Your task to perform on an android device: Clear the shopping cart on newegg. Image 0: 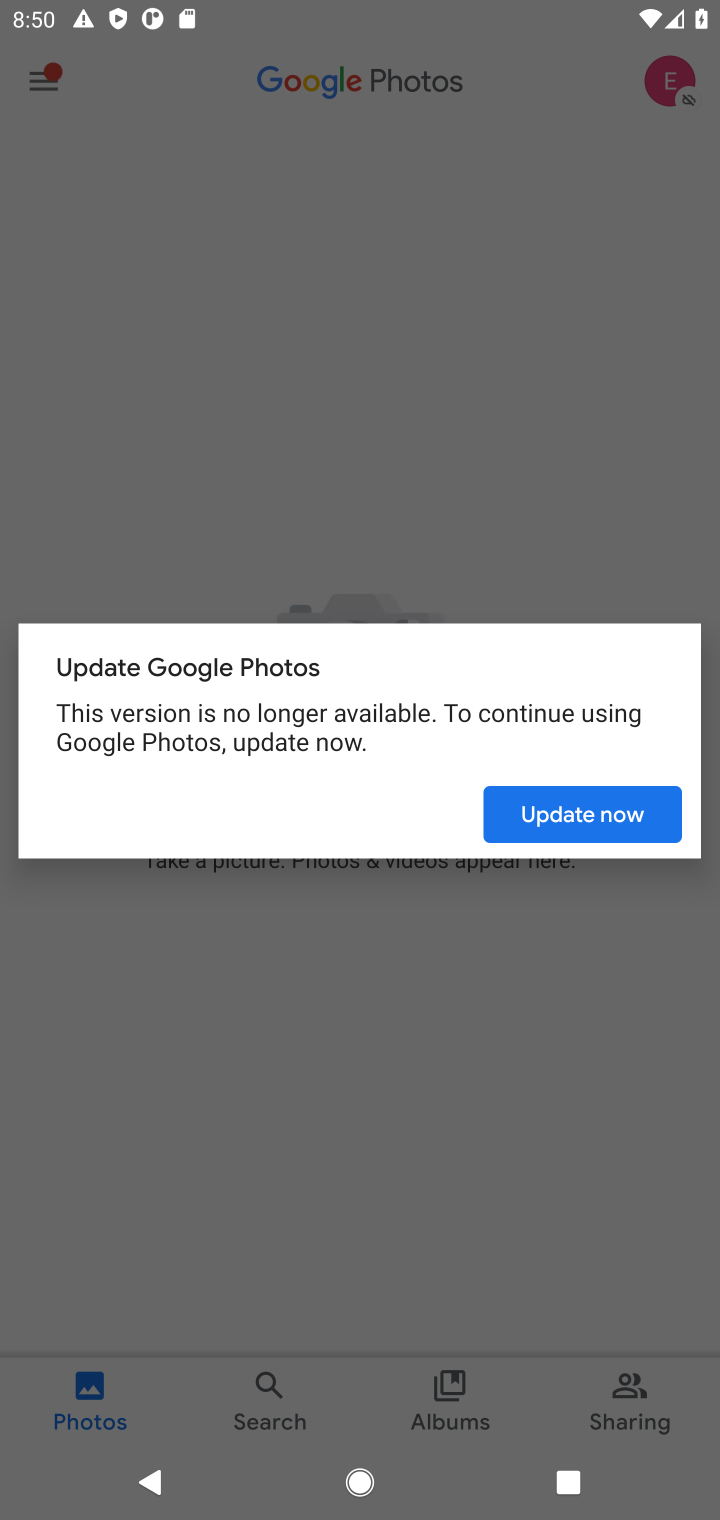
Step 0: press home button
Your task to perform on an android device: Clear the shopping cart on newegg. Image 1: 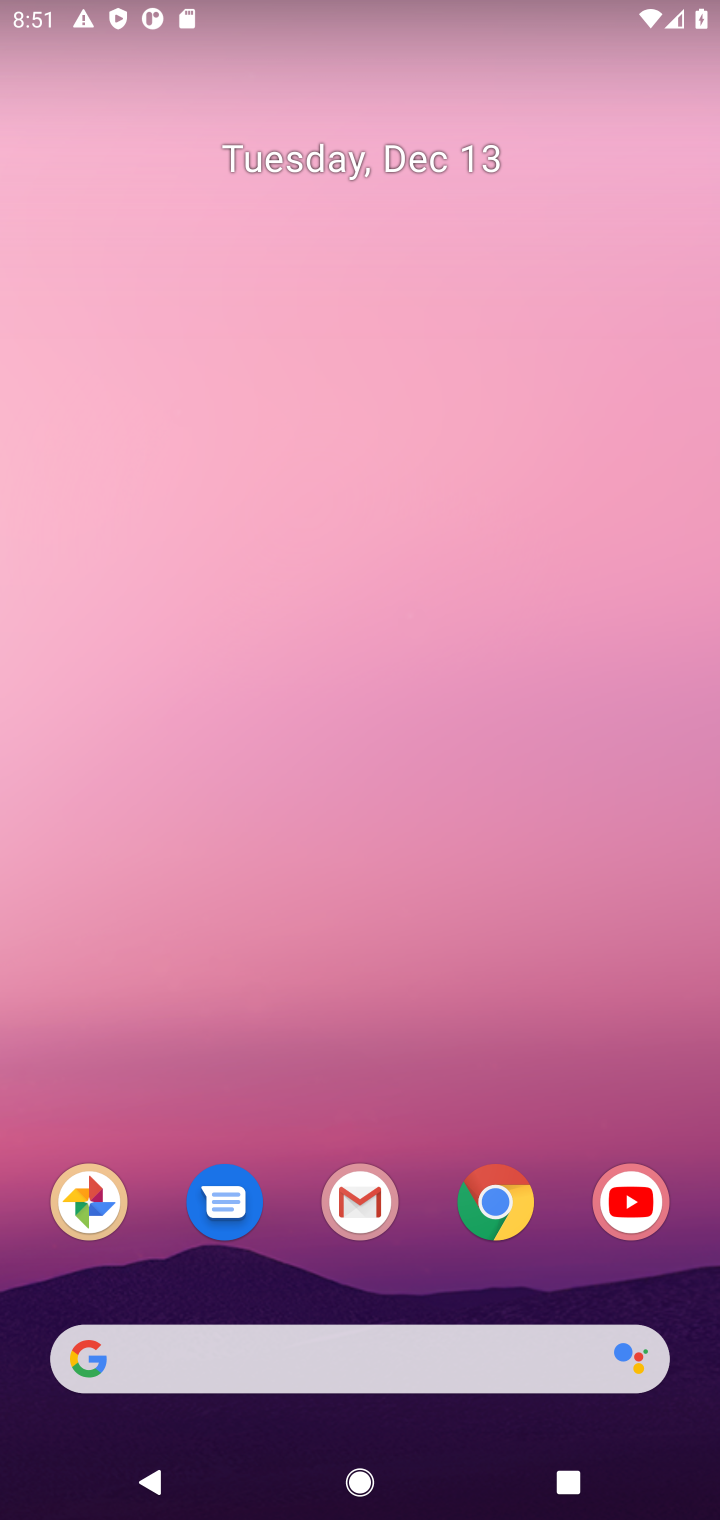
Step 1: click (501, 1221)
Your task to perform on an android device: Clear the shopping cart on newegg. Image 2: 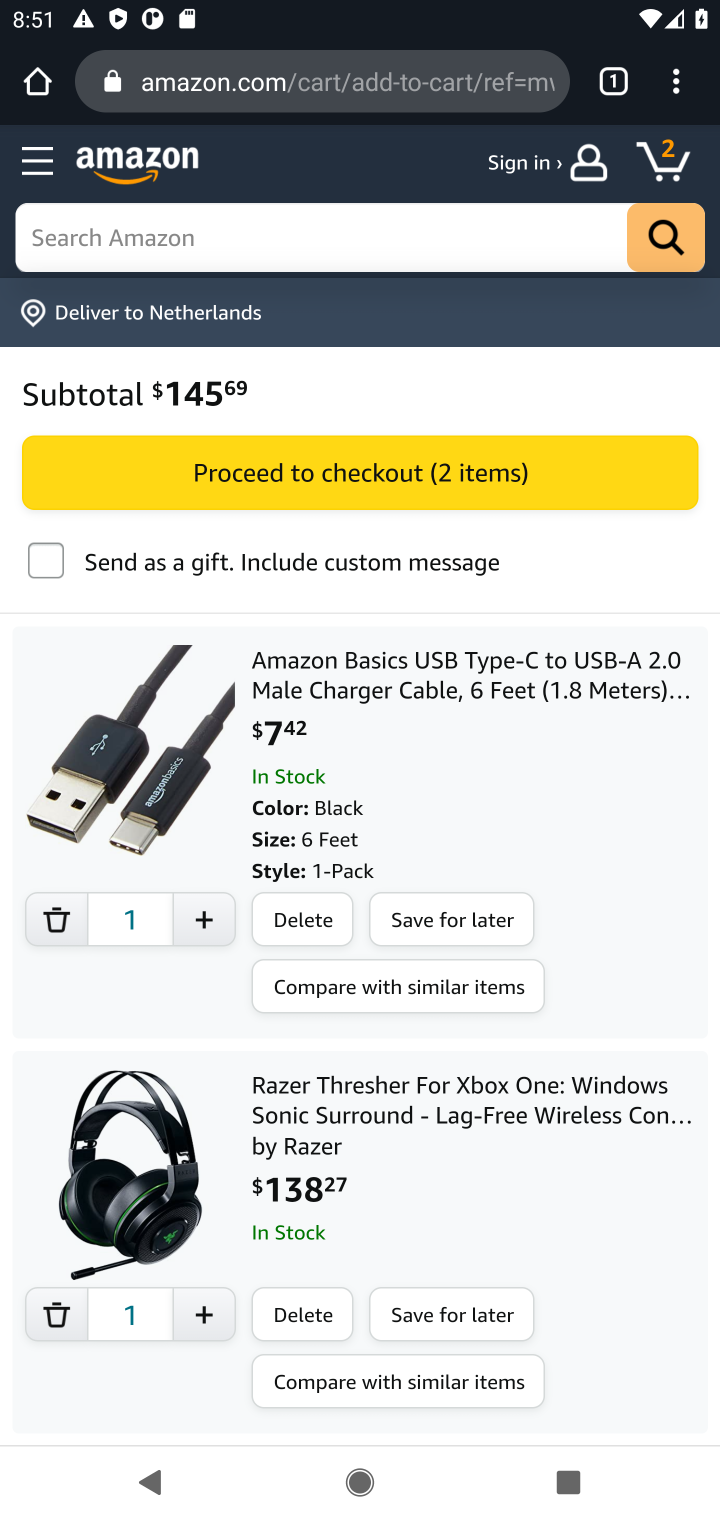
Step 2: click (252, 101)
Your task to perform on an android device: Clear the shopping cart on newegg. Image 3: 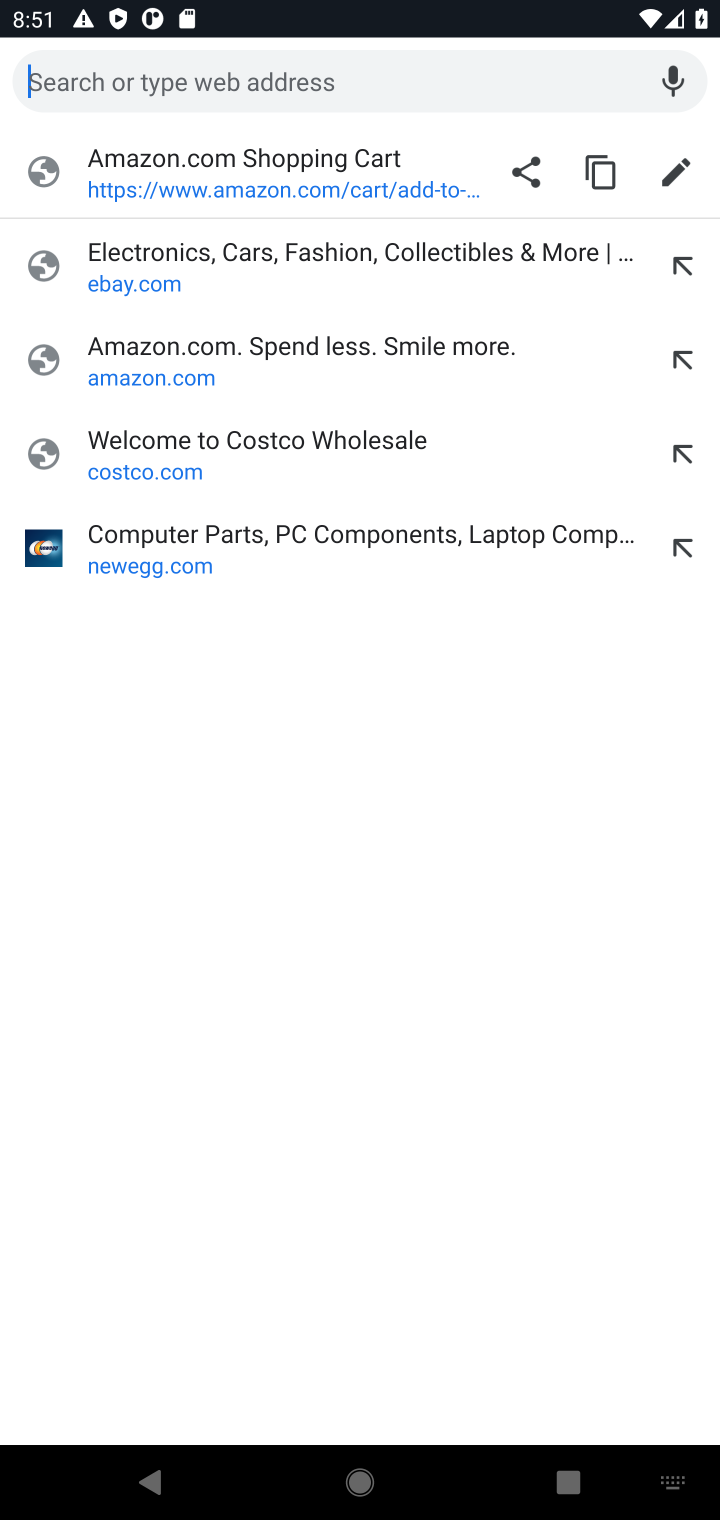
Step 3: click (139, 573)
Your task to perform on an android device: Clear the shopping cart on newegg. Image 4: 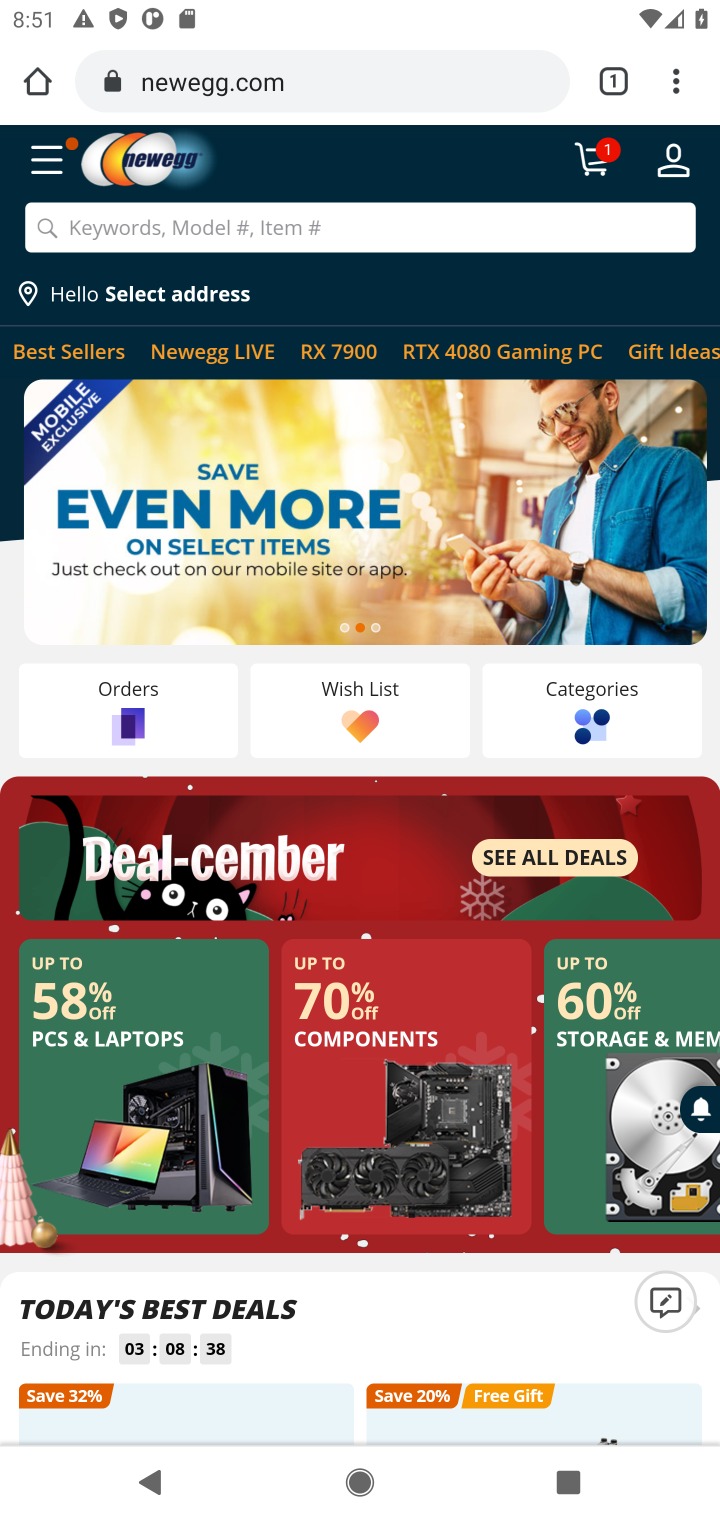
Step 4: click (589, 179)
Your task to perform on an android device: Clear the shopping cart on newegg. Image 5: 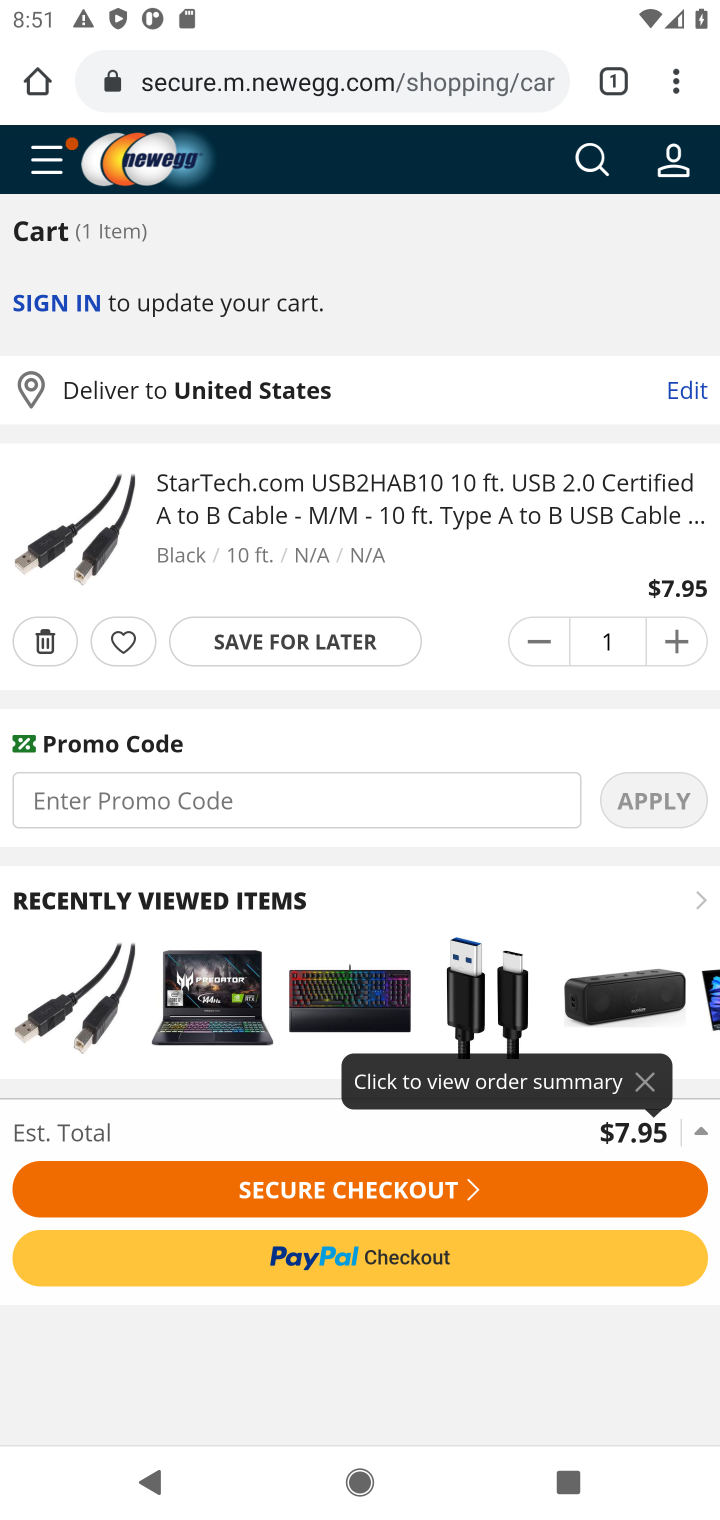
Step 5: click (44, 638)
Your task to perform on an android device: Clear the shopping cart on newegg. Image 6: 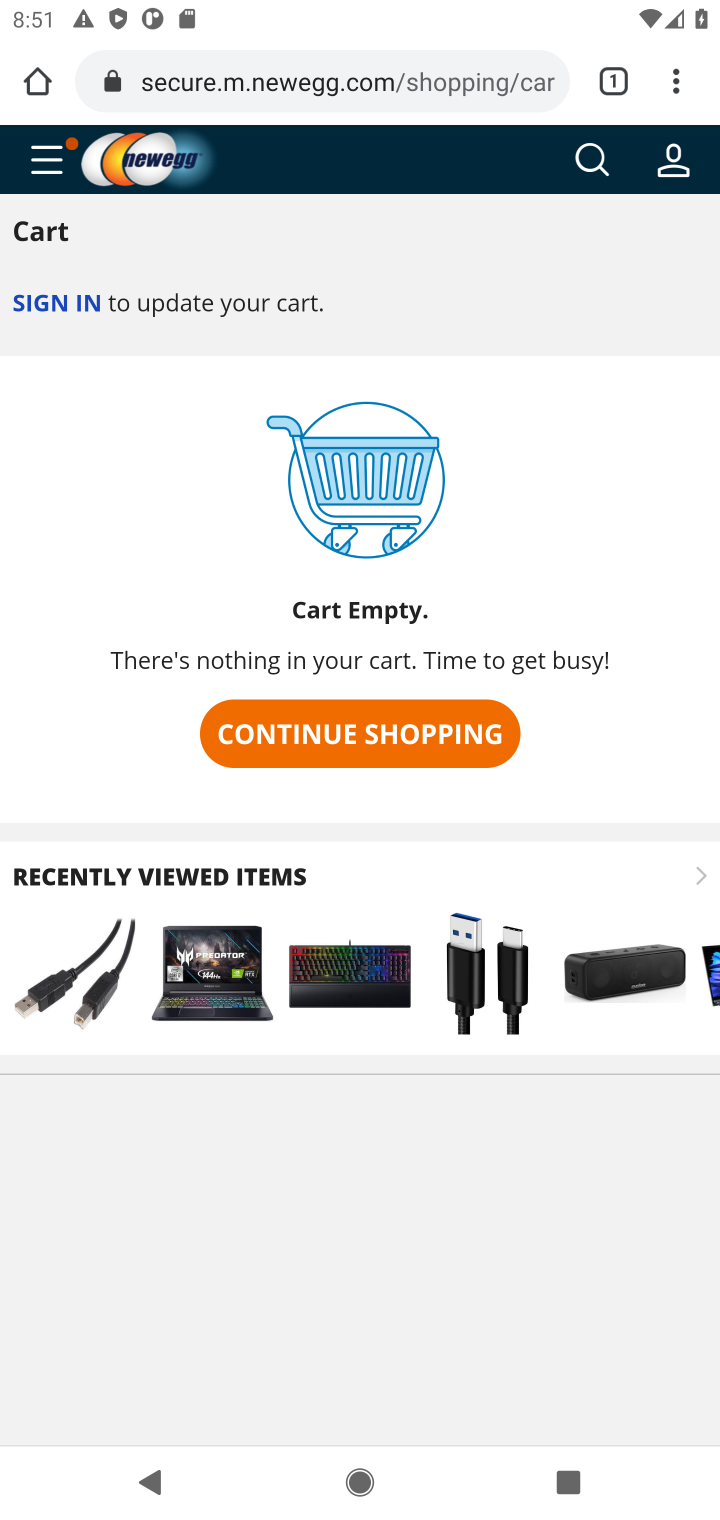
Step 6: task complete